Your task to perform on an android device: Open the map Image 0: 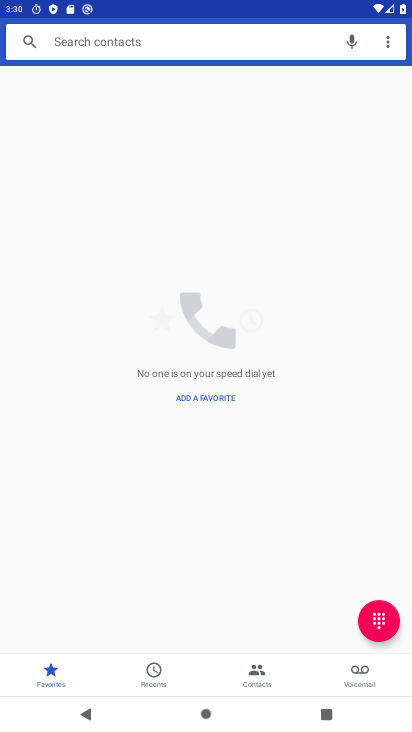
Step 0: press home button
Your task to perform on an android device: Open the map Image 1: 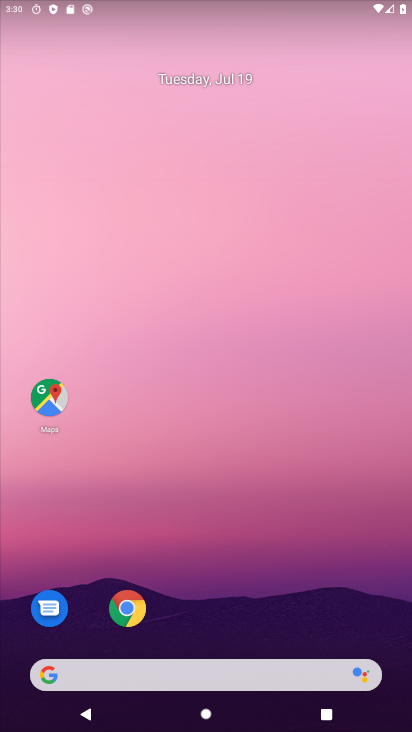
Step 1: click (46, 390)
Your task to perform on an android device: Open the map Image 2: 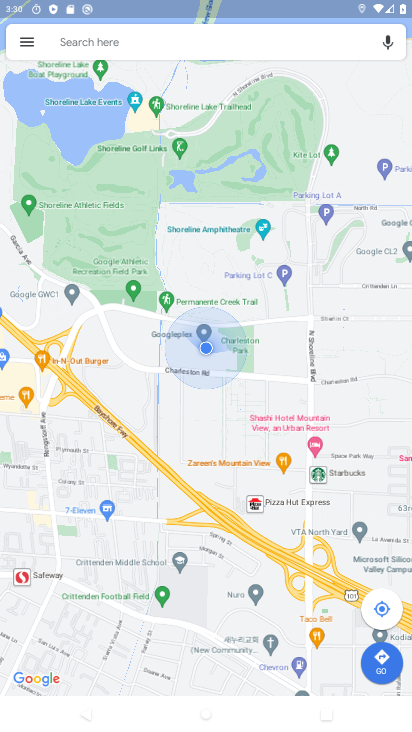
Step 2: task complete